Your task to perform on an android device: Go to sound settings Image 0: 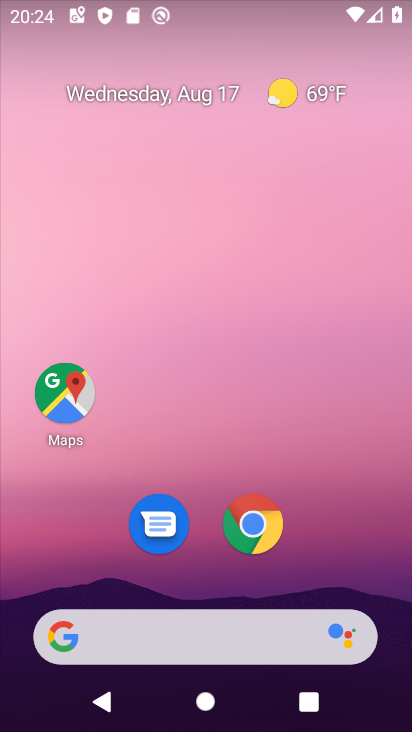
Step 0: drag from (310, 480) to (312, 57)
Your task to perform on an android device: Go to sound settings Image 1: 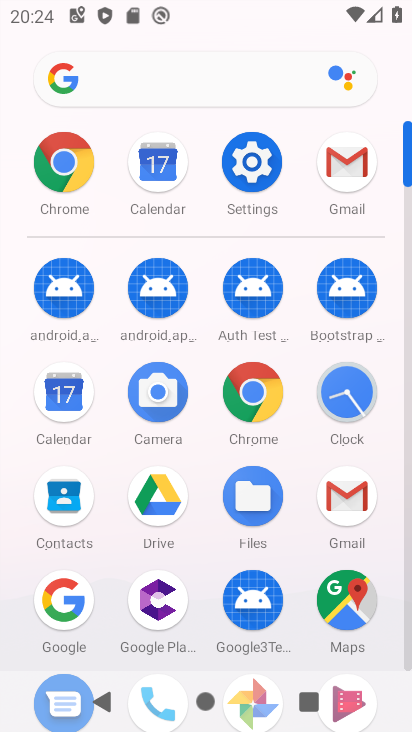
Step 1: click (249, 150)
Your task to perform on an android device: Go to sound settings Image 2: 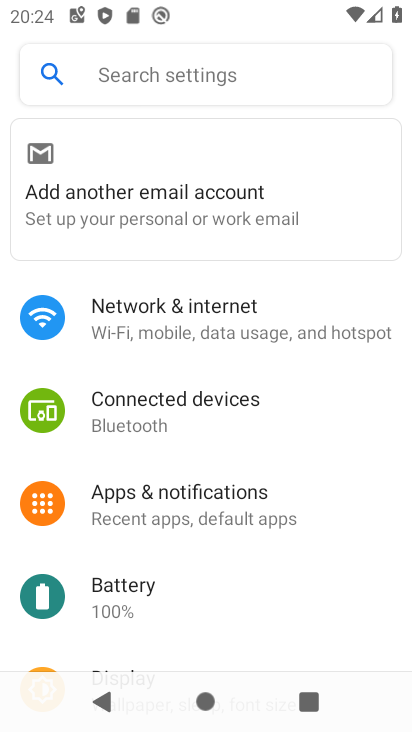
Step 2: drag from (219, 583) to (229, 346)
Your task to perform on an android device: Go to sound settings Image 3: 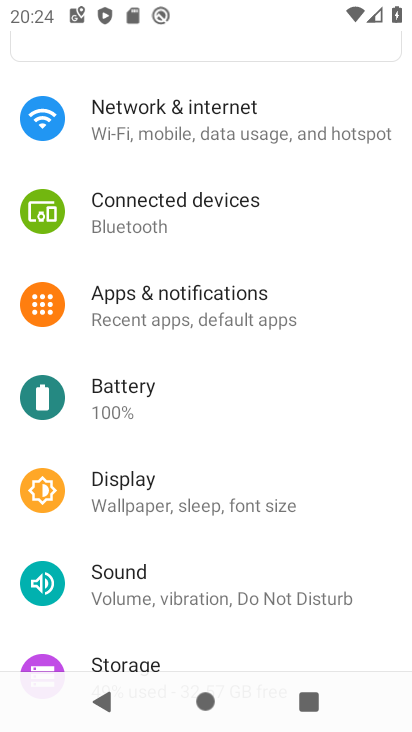
Step 3: click (183, 584)
Your task to perform on an android device: Go to sound settings Image 4: 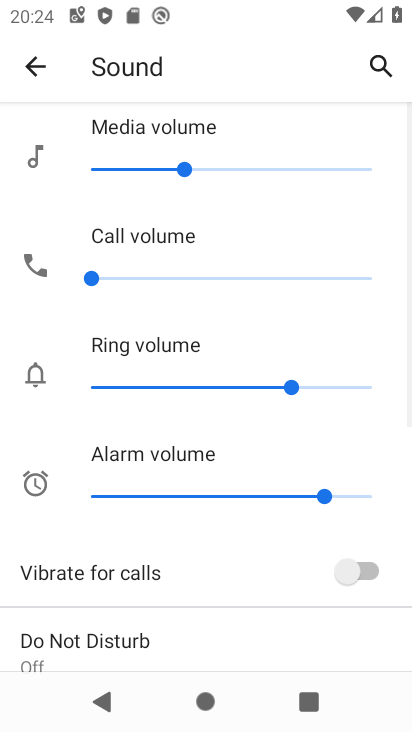
Step 4: task complete